Your task to perform on an android device: Go to network settings Image 0: 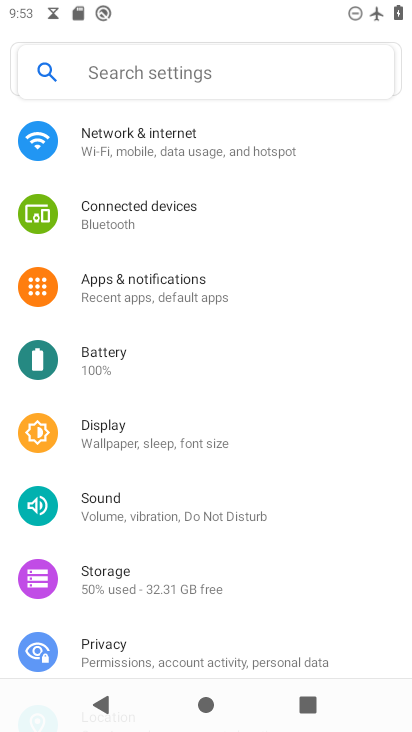
Step 0: press home button
Your task to perform on an android device: Go to network settings Image 1: 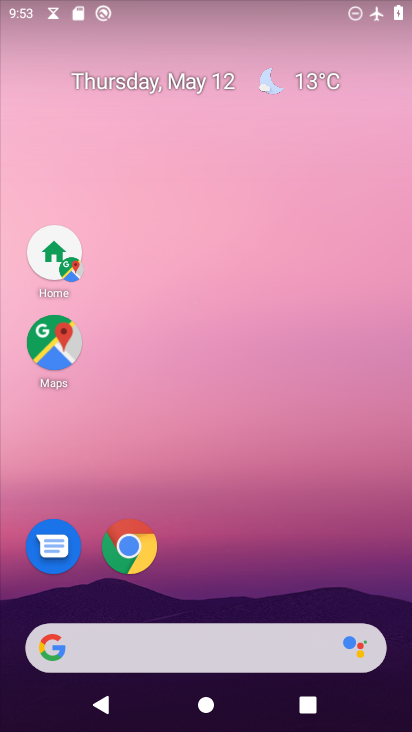
Step 1: drag from (200, 653) to (288, 218)
Your task to perform on an android device: Go to network settings Image 2: 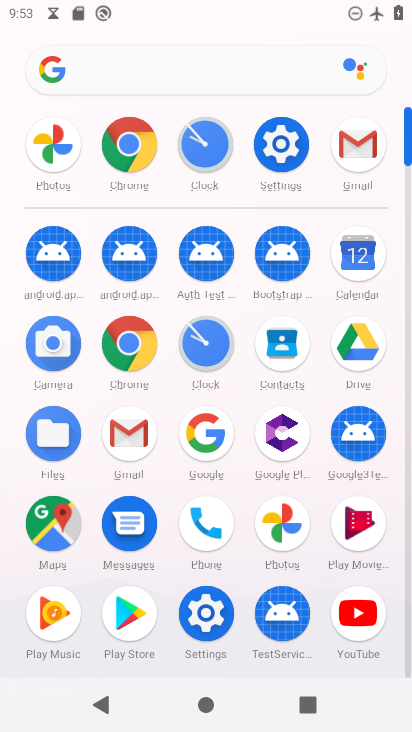
Step 2: click (282, 158)
Your task to perform on an android device: Go to network settings Image 3: 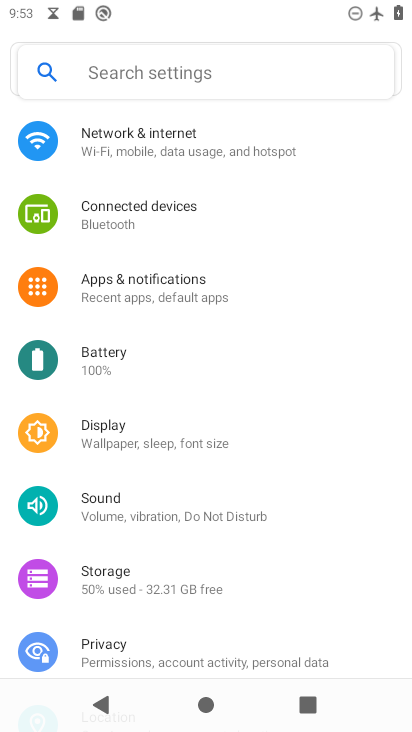
Step 3: click (192, 148)
Your task to perform on an android device: Go to network settings Image 4: 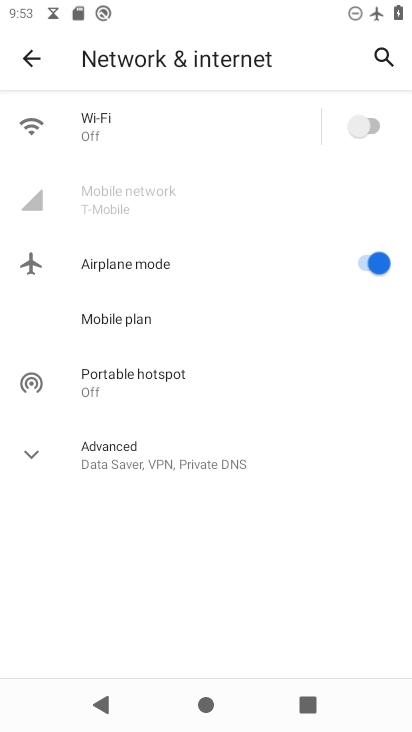
Step 4: task complete